Your task to perform on an android device: Show the shopping cart on target.com. Add "logitech g pro" to the cart on target.com, then select checkout. Image 0: 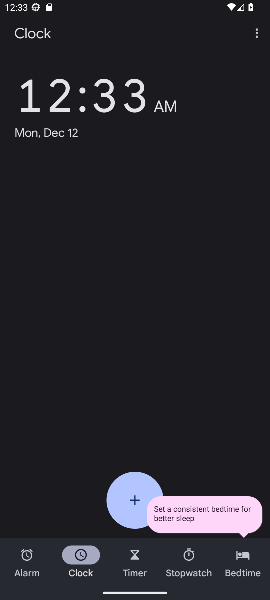
Step 0: press home button
Your task to perform on an android device: Show the shopping cart on target.com. Add "logitech g pro" to the cart on target.com, then select checkout. Image 1: 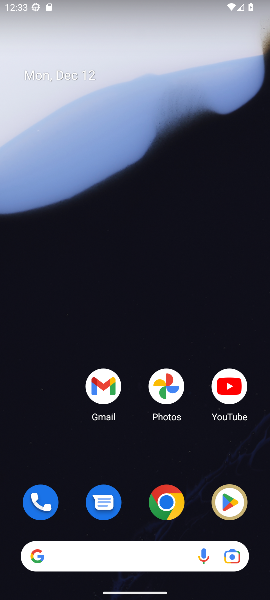
Step 1: click (121, 552)
Your task to perform on an android device: Show the shopping cart on target.com. Add "logitech g pro" to the cart on target.com, then select checkout. Image 2: 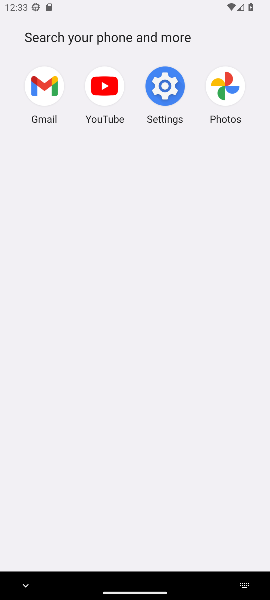
Step 2: press home button
Your task to perform on an android device: Show the shopping cart on target.com. Add "logitech g pro" to the cart on target.com, then select checkout. Image 3: 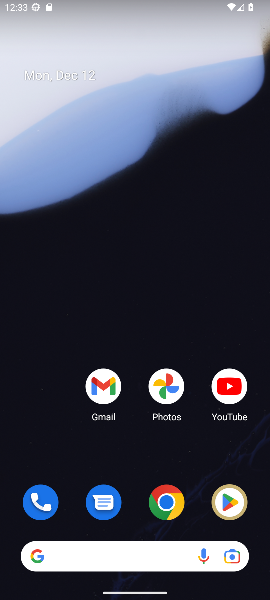
Step 3: click (171, 511)
Your task to perform on an android device: Show the shopping cart on target.com. Add "logitech g pro" to the cart on target.com, then select checkout. Image 4: 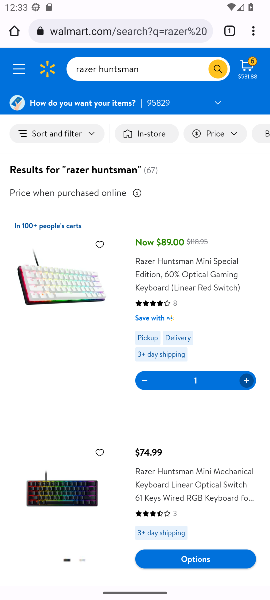
Step 4: click (133, 27)
Your task to perform on an android device: Show the shopping cart on target.com. Add "logitech g pro" to the cart on target.com, then select checkout. Image 5: 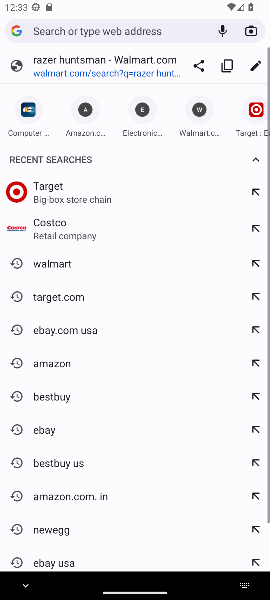
Step 5: click (116, 195)
Your task to perform on an android device: Show the shopping cart on target.com. Add "logitech g pro" to the cart on target.com, then select checkout. Image 6: 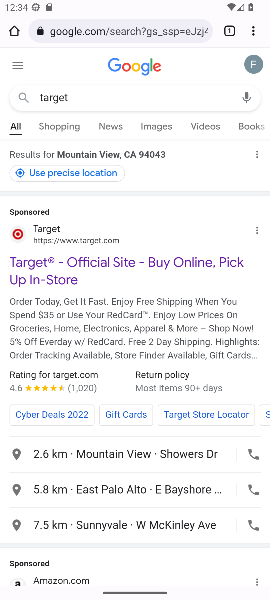
Step 6: click (92, 252)
Your task to perform on an android device: Show the shopping cart on target.com. Add "logitech g pro" to the cart on target.com, then select checkout. Image 7: 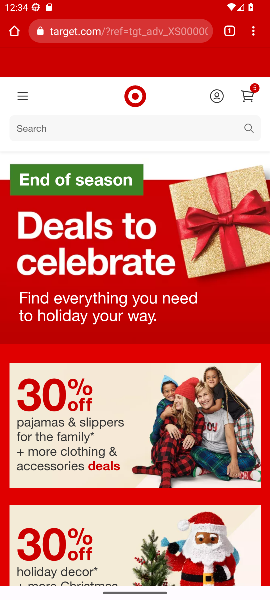
Step 7: click (85, 124)
Your task to perform on an android device: Show the shopping cart on target.com. Add "logitech g pro" to the cart on target.com, then select checkout. Image 8: 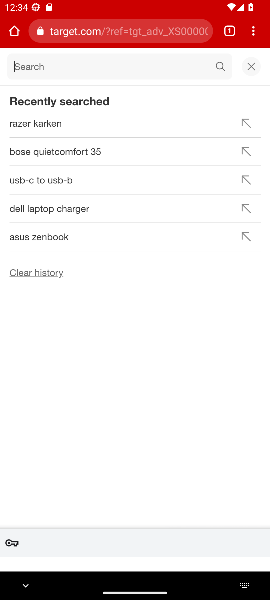
Step 8: type "logitech g pro"
Your task to perform on an android device: Show the shopping cart on target.com. Add "logitech g pro" to the cart on target.com, then select checkout. Image 9: 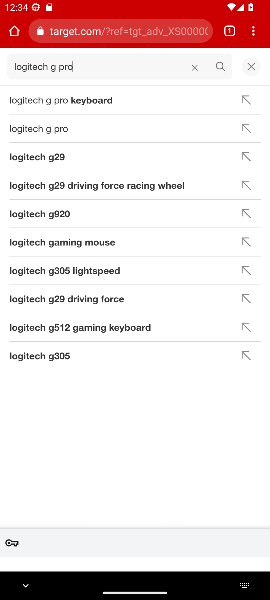
Step 9: click (110, 101)
Your task to perform on an android device: Show the shopping cart on target.com. Add "logitech g pro" to the cart on target.com, then select checkout. Image 10: 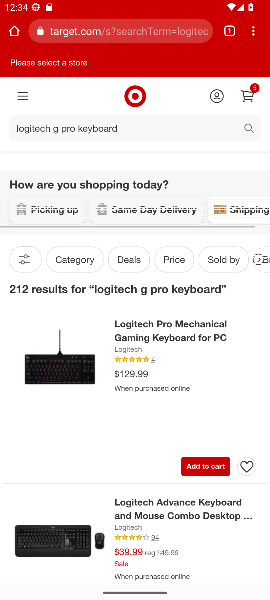
Step 10: click (212, 473)
Your task to perform on an android device: Show the shopping cart on target.com. Add "logitech g pro" to the cart on target.com, then select checkout. Image 11: 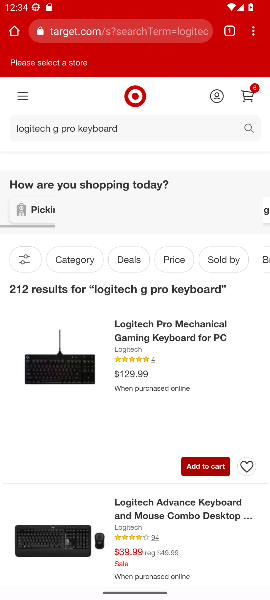
Step 11: click (182, 467)
Your task to perform on an android device: Show the shopping cart on target.com. Add "logitech g pro" to the cart on target.com, then select checkout. Image 12: 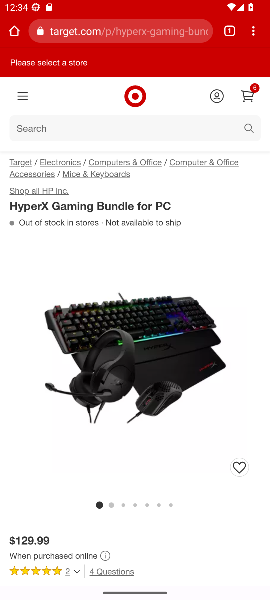
Step 12: drag from (163, 484) to (154, 257)
Your task to perform on an android device: Show the shopping cart on target.com. Add "logitech g pro" to the cart on target.com, then select checkout. Image 13: 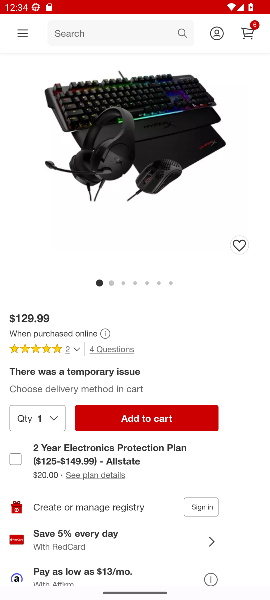
Step 13: click (179, 429)
Your task to perform on an android device: Show the shopping cart on target.com. Add "logitech g pro" to the cart on target.com, then select checkout. Image 14: 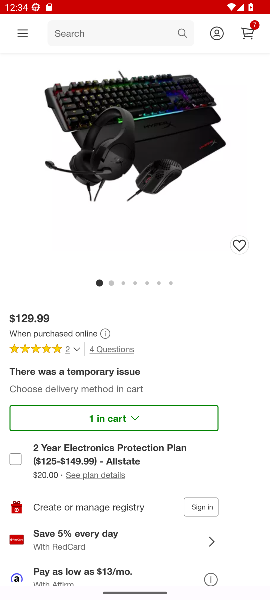
Step 14: task complete